Your task to perform on an android device: turn on bluetooth scan Image 0: 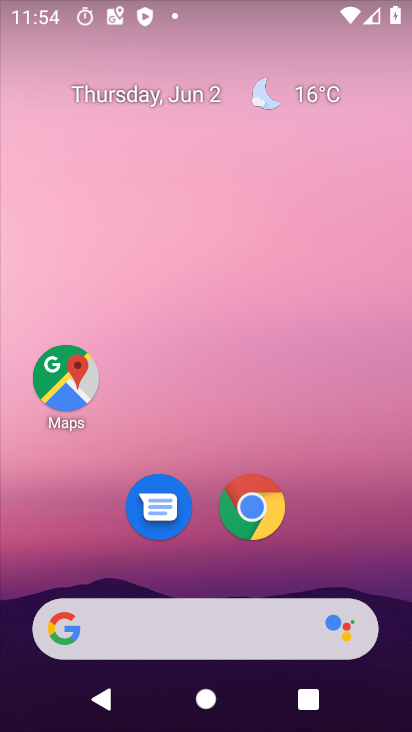
Step 0: drag from (403, 631) to (307, 61)
Your task to perform on an android device: turn on bluetooth scan Image 1: 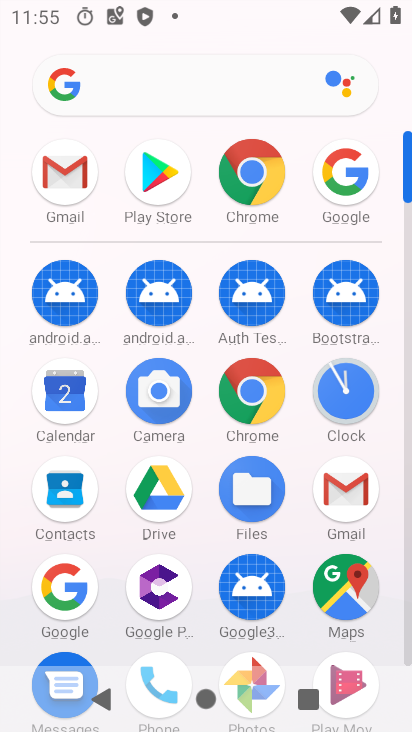
Step 1: drag from (302, 617) to (284, 163)
Your task to perform on an android device: turn on bluetooth scan Image 2: 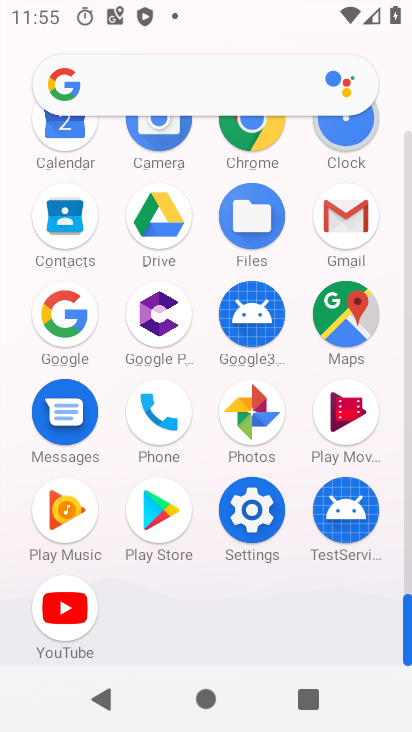
Step 2: click (263, 489)
Your task to perform on an android device: turn on bluetooth scan Image 3: 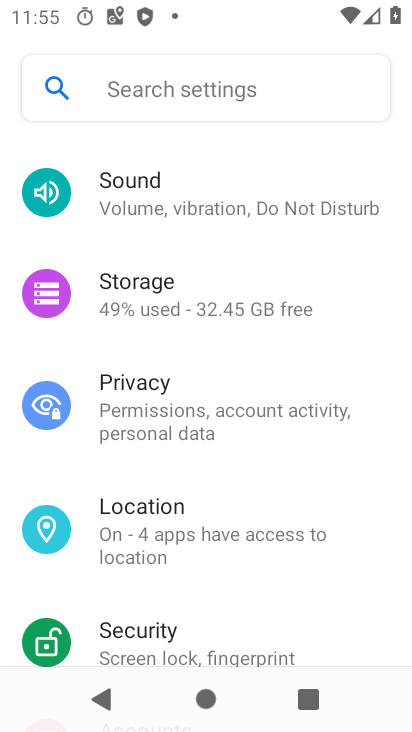
Step 3: click (238, 539)
Your task to perform on an android device: turn on bluetooth scan Image 4: 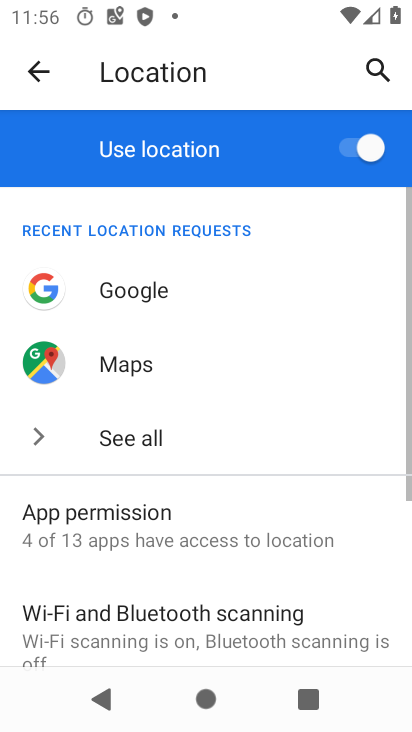
Step 4: click (226, 621)
Your task to perform on an android device: turn on bluetooth scan Image 5: 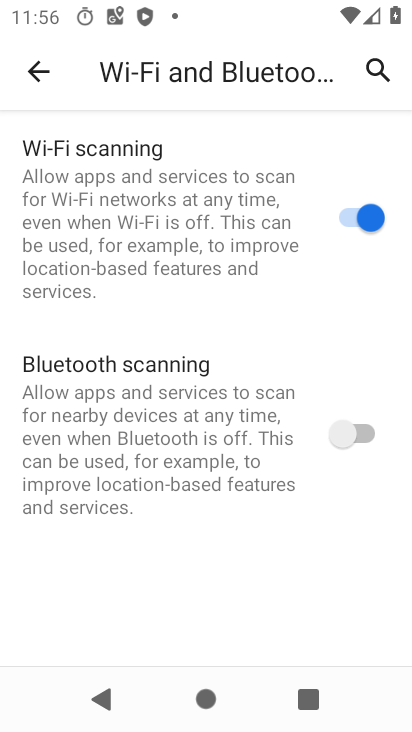
Step 5: click (348, 447)
Your task to perform on an android device: turn on bluetooth scan Image 6: 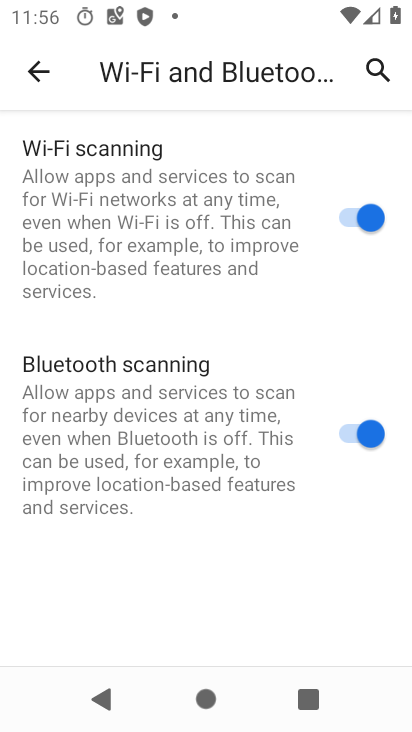
Step 6: task complete